Your task to perform on an android device: open device folders in google photos Image 0: 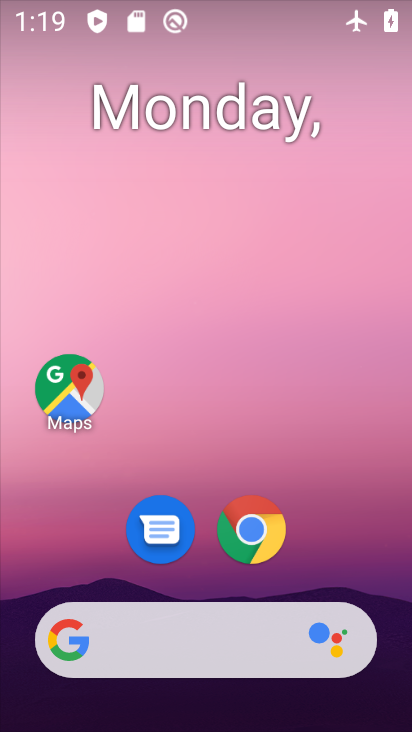
Step 0: drag from (313, 474) to (346, 79)
Your task to perform on an android device: open device folders in google photos Image 1: 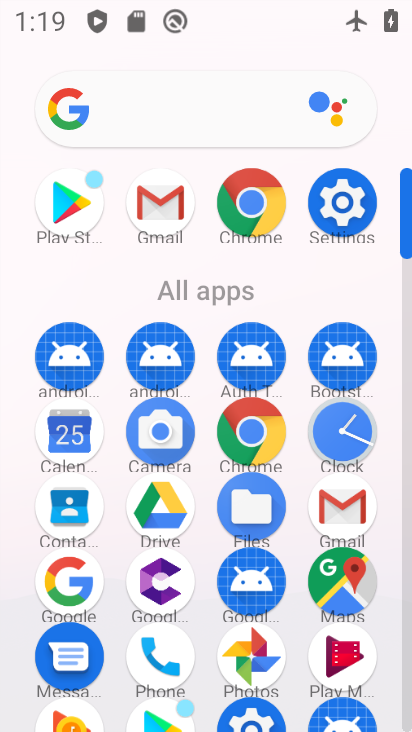
Step 1: drag from (397, 612) to (375, 244)
Your task to perform on an android device: open device folders in google photos Image 2: 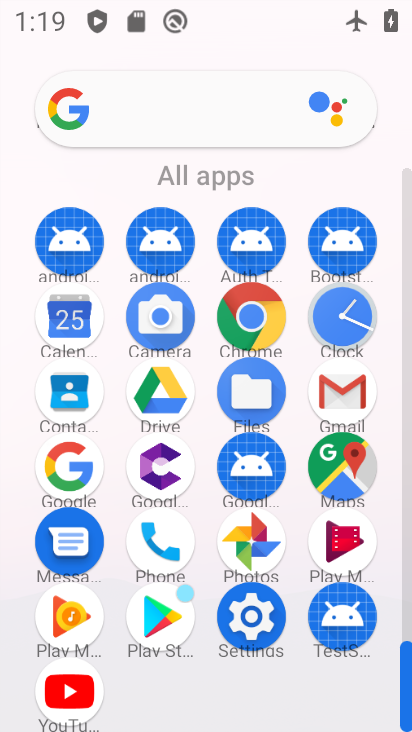
Step 2: click (257, 553)
Your task to perform on an android device: open device folders in google photos Image 3: 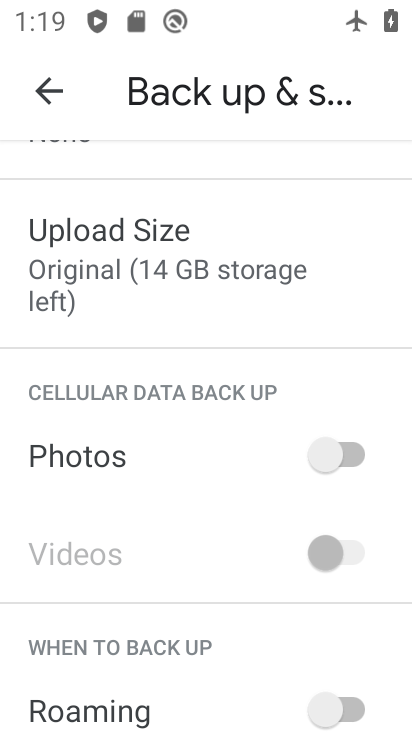
Step 3: drag from (178, 367) to (205, 609)
Your task to perform on an android device: open device folders in google photos Image 4: 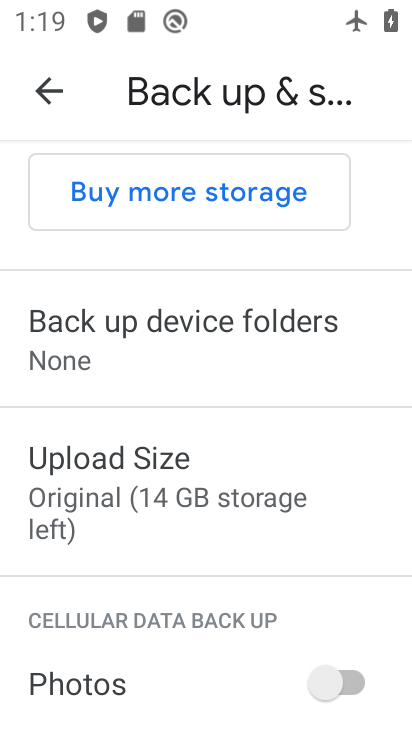
Step 4: drag from (205, 165) to (147, 601)
Your task to perform on an android device: open device folders in google photos Image 5: 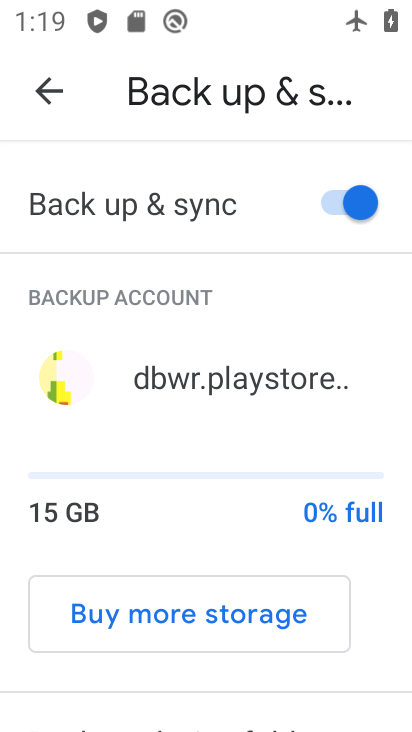
Step 5: drag from (208, 319) to (175, 702)
Your task to perform on an android device: open device folders in google photos Image 6: 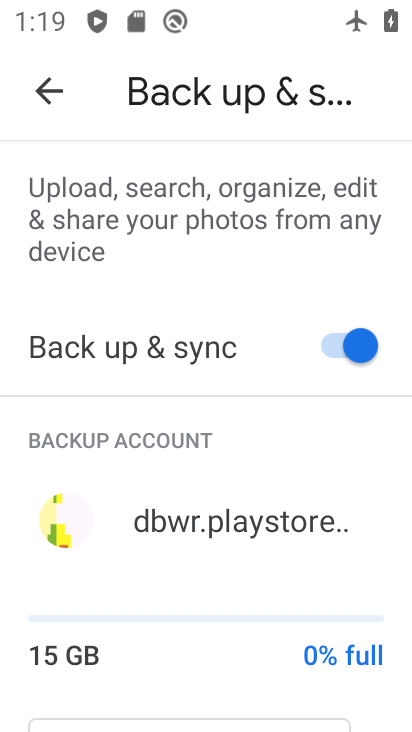
Step 6: drag from (202, 219) to (158, 652)
Your task to perform on an android device: open device folders in google photos Image 7: 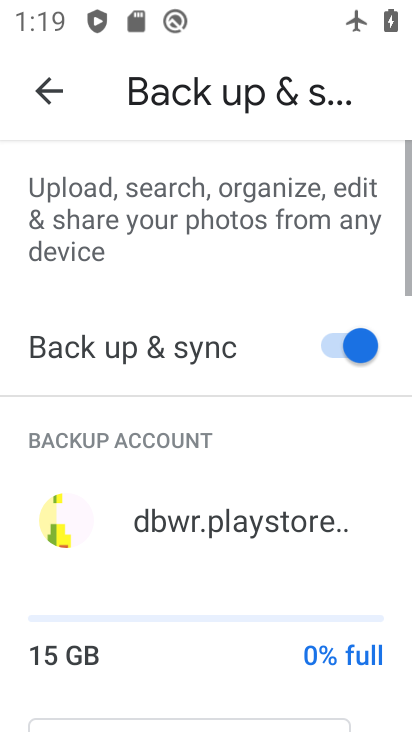
Step 7: drag from (181, 631) to (229, 228)
Your task to perform on an android device: open device folders in google photos Image 8: 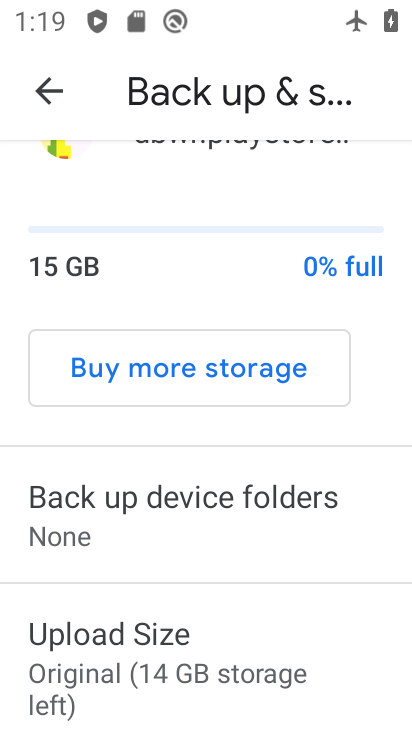
Step 8: drag from (226, 559) to (276, 230)
Your task to perform on an android device: open device folders in google photos Image 9: 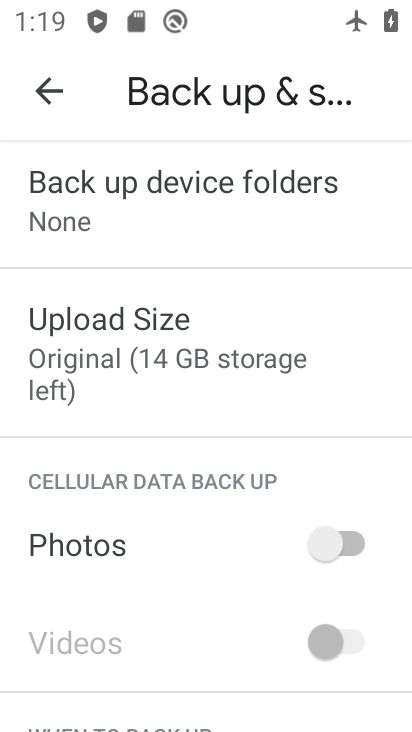
Step 9: drag from (188, 588) to (249, 183)
Your task to perform on an android device: open device folders in google photos Image 10: 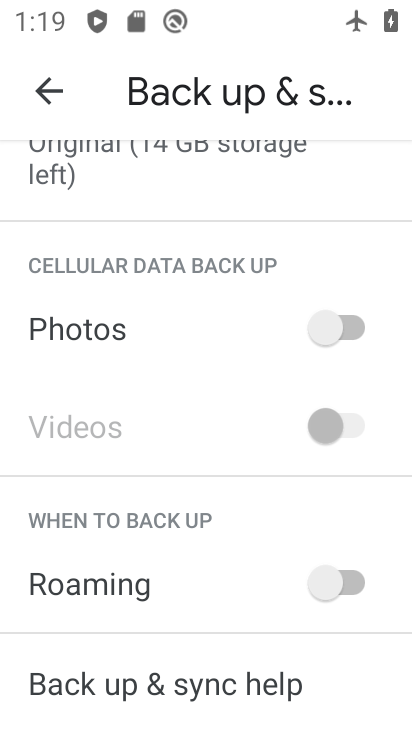
Step 10: drag from (152, 545) to (225, 198)
Your task to perform on an android device: open device folders in google photos Image 11: 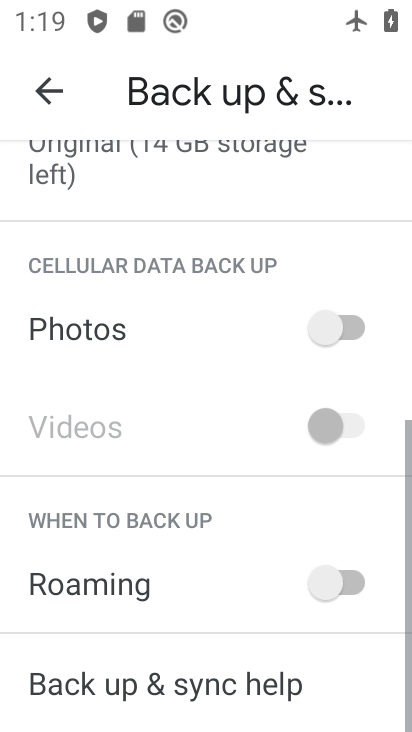
Step 11: drag from (128, 642) to (219, 274)
Your task to perform on an android device: open device folders in google photos Image 12: 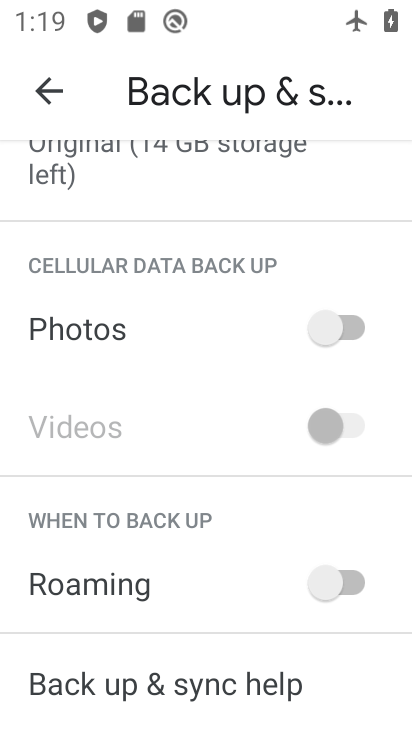
Step 12: drag from (172, 361) to (190, 244)
Your task to perform on an android device: open device folders in google photos Image 13: 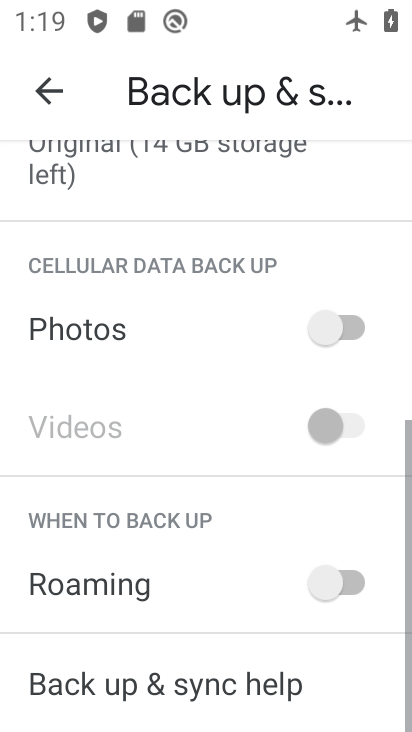
Step 13: click (41, 84)
Your task to perform on an android device: open device folders in google photos Image 14: 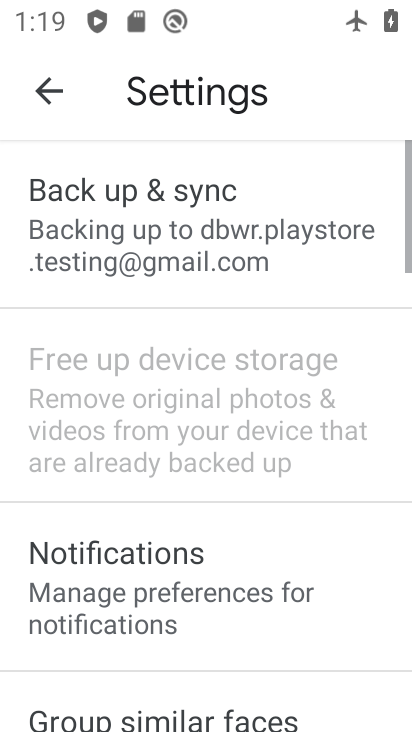
Step 14: drag from (132, 193) to (110, 617)
Your task to perform on an android device: open device folders in google photos Image 15: 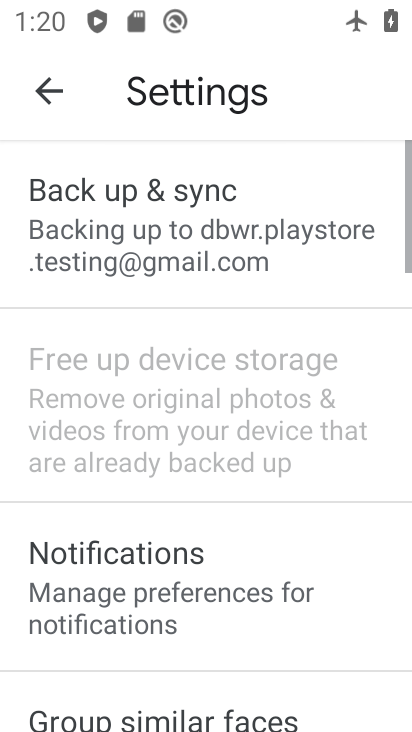
Step 15: drag from (217, 271) to (174, 518)
Your task to perform on an android device: open device folders in google photos Image 16: 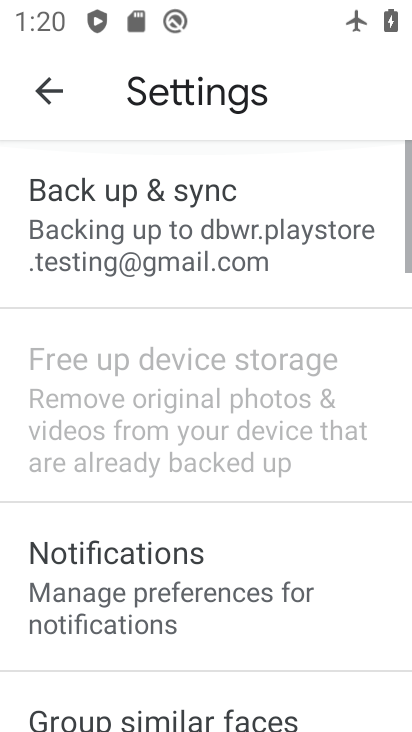
Step 16: drag from (262, 469) to (327, 181)
Your task to perform on an android device: open device folders in google photos Image 17: 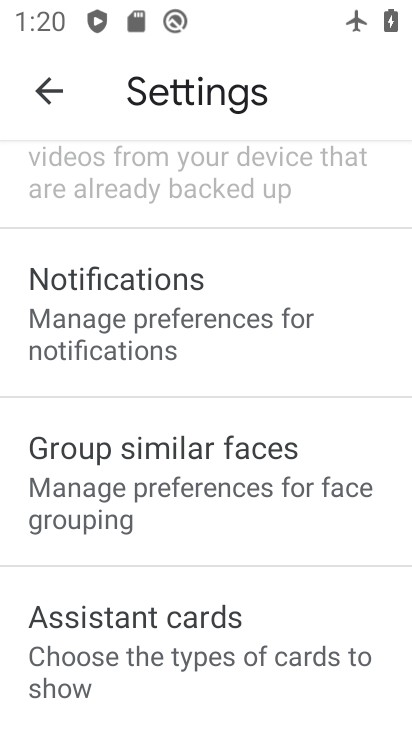
Step 17: drag from (260, 637) to (325, 172)
Your task to perform on an android device: open device folders in google photos Image 18: 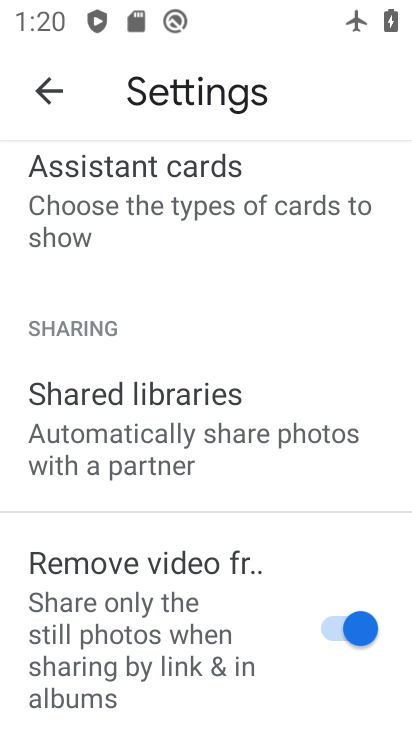
Step 18: drag from (253, 602) to (338, 92)
Your task to perform on an android device: open device folders in google photos Image 19: 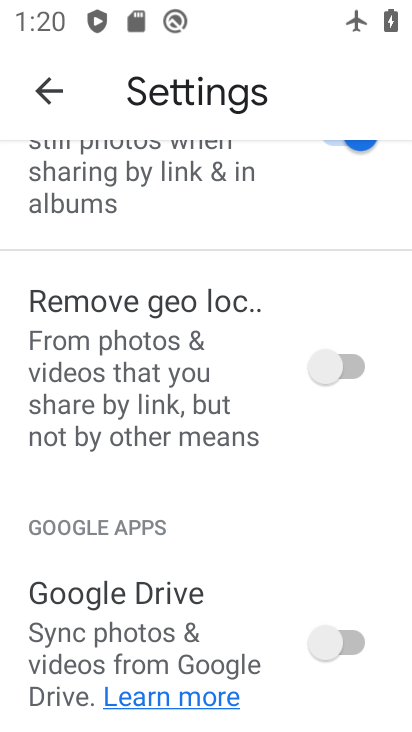
Step 19: click (53, 95)
Your task to perform on an android device: open device folders in google photos Image 20: 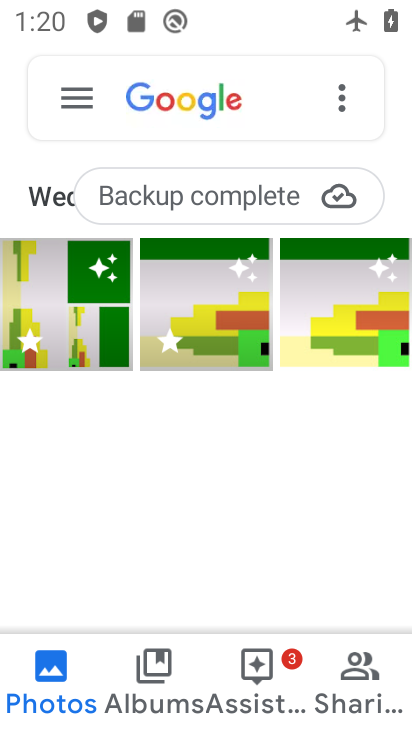
Step 20: click (89, 103)
Your task to perform on an android device: open device folders in google photos Image 21: 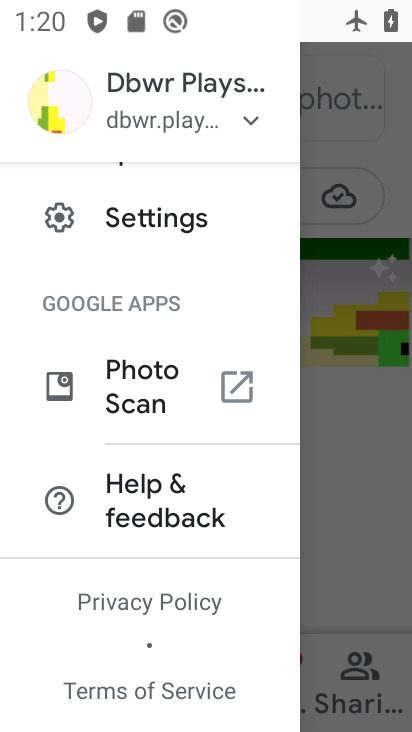
Step 21: drag from (130, 304) to (124, 628)
Your task to perform on an android device: open device folders in google photos Image 22: 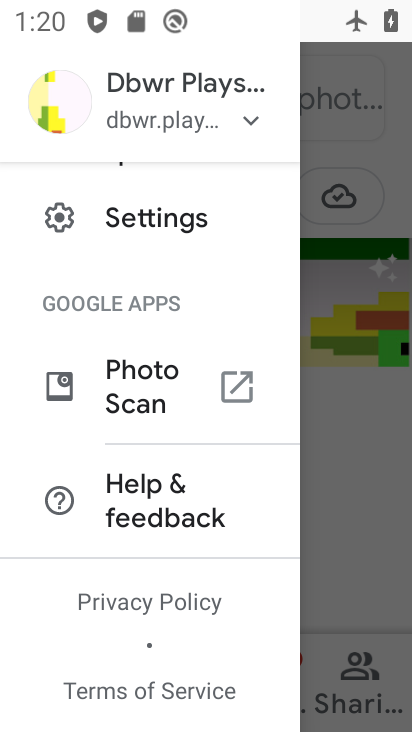
Step 22: drag from (162, 199) to (179, 570)
Your task to perform on an android device: open device folders in google photos Image 23: 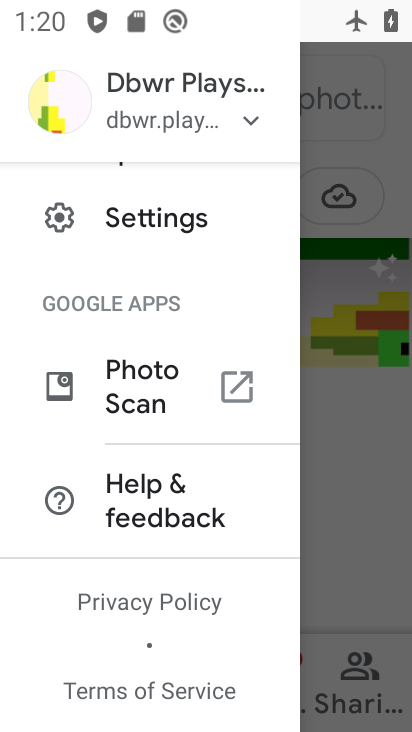
Step 23: drag from (146, 204) to (142, 606)
Your task to perform on an android device: open device folders in google photos Image 24: 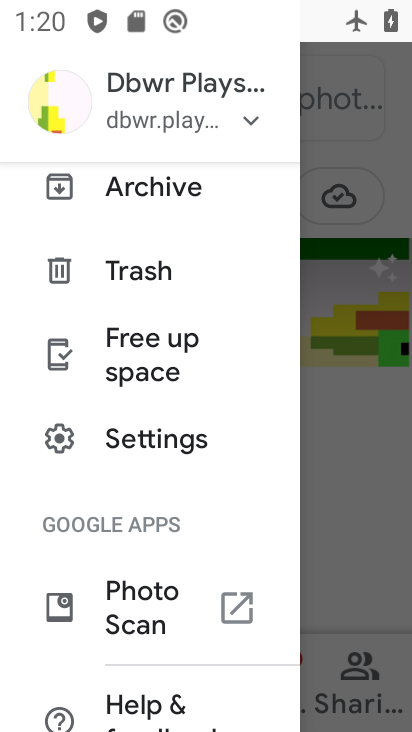
Step 24: drag from (144, 246) to (160, 632)
Your task to perform on an android device: open device folders in google photos Image 25: 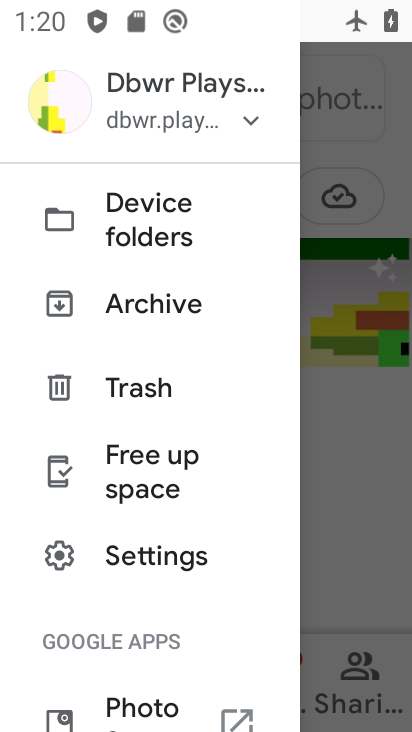
Step 25: click (155, 225)
Your task to perform on an android device: open device folders in google photos Image 26: 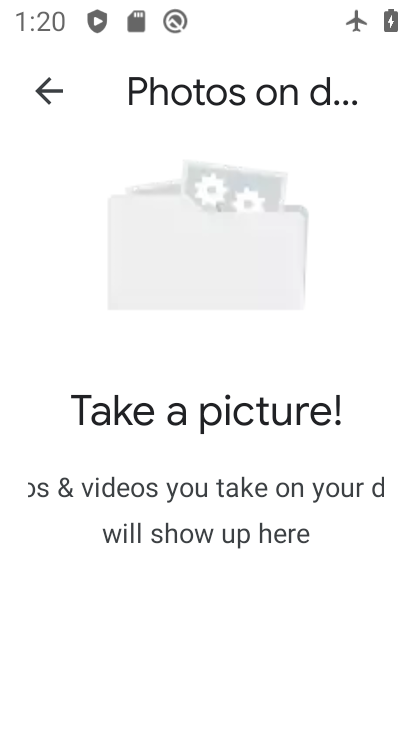
Step 26: task complete